Your task to perform on an android device: find which apps use the phone's location Image 0: 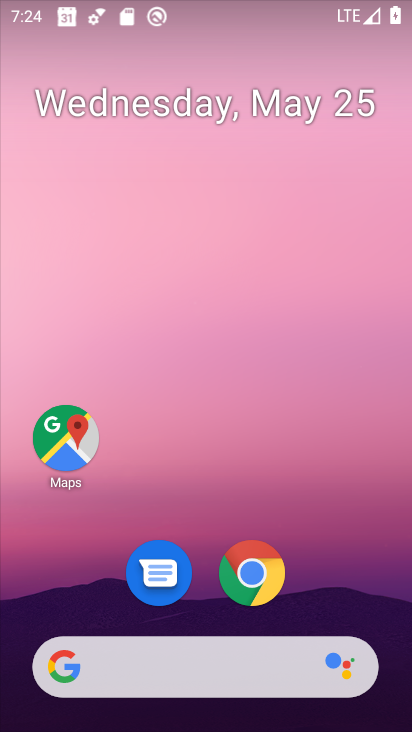
Step 0: drag from (383, 715) to (345, 92)
Your task to perform on an android device: find which apps use the phone's location Image 1: 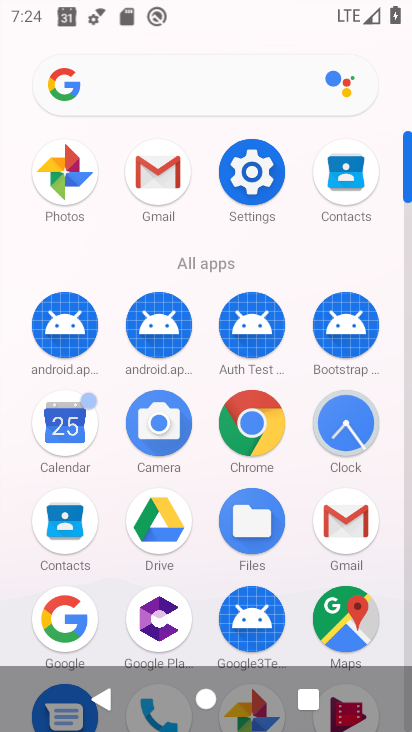
Step 1: click (251, 164)
Your task to perform on an android device: find which apps use the phone's location Image 2: 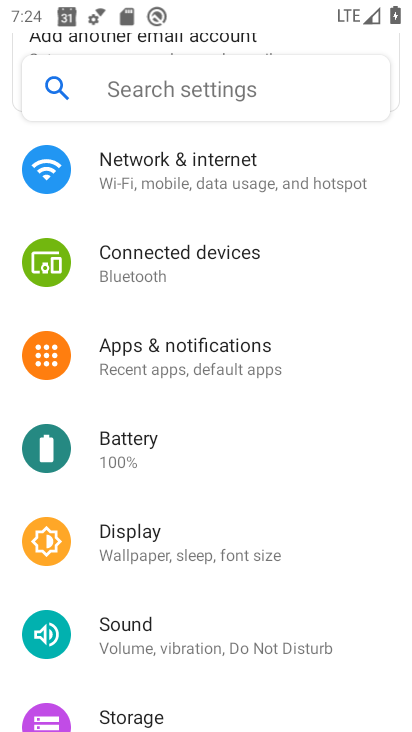
Step 2: drag from (301, 702) to (295, 175)
Your task to perform on an android device: find which apps use the phone's location Image 3: 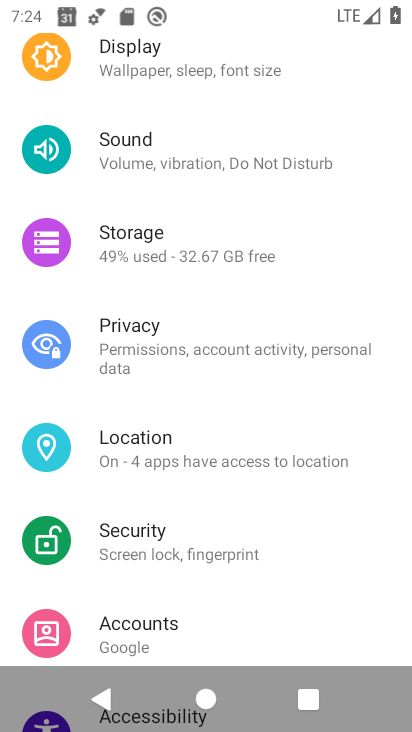
Step 3: drag from (244, 634) to (258, 244)
Your task to perform on an android device: find which apps use the phone's location Image 4: 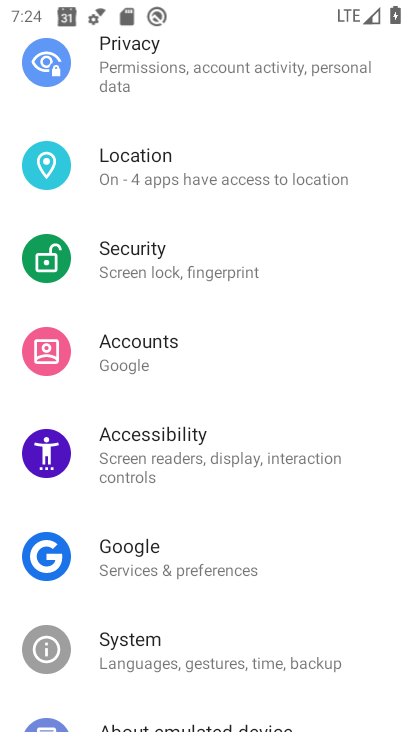
Step 4: click (152, 169)
Your task to perform on an android device: find which apps use the phone's location Image 5: 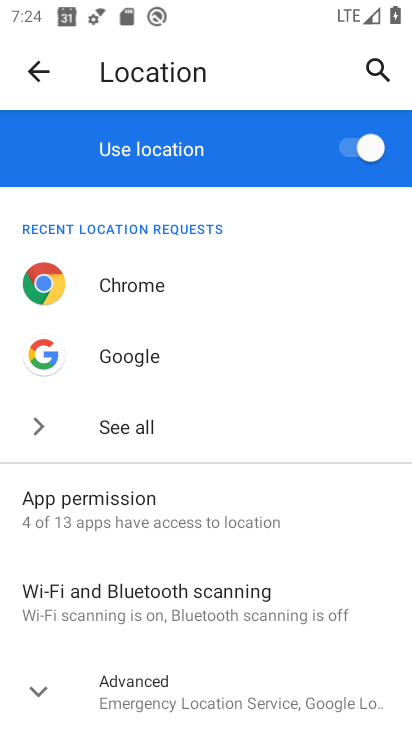
Step 5: click (60, 523)
Your task to perform on an android device: find which apps use the phone's location Image 6: 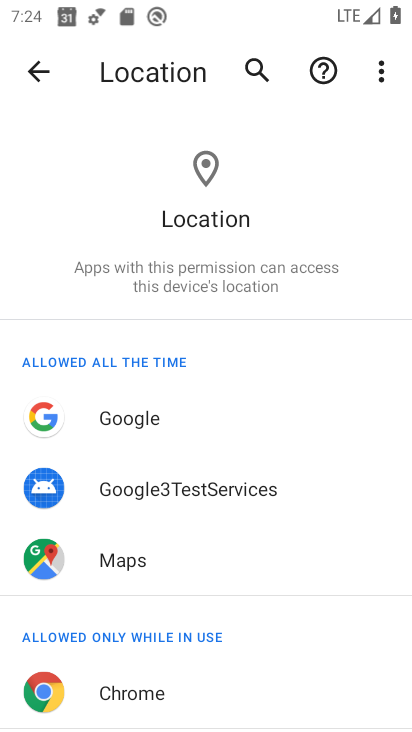
Step 6: task complete